Your task to perform on an android device: Open calendar and show me the third week of next month Image 0: 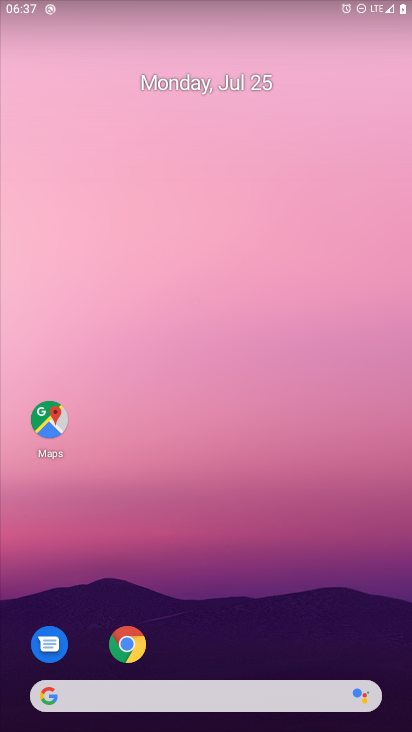
Step 0: press home button
Your task to perform on an android device: Open calendar and show me the third week of next month Image 1: 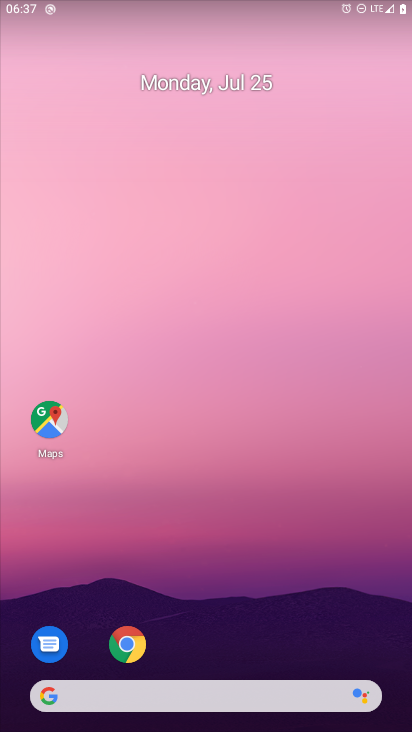
Step 1: drag from (228, 246) to (236, 196)
Your task to perform on an android device: Open calendar and show me the third week of next month Image 2: 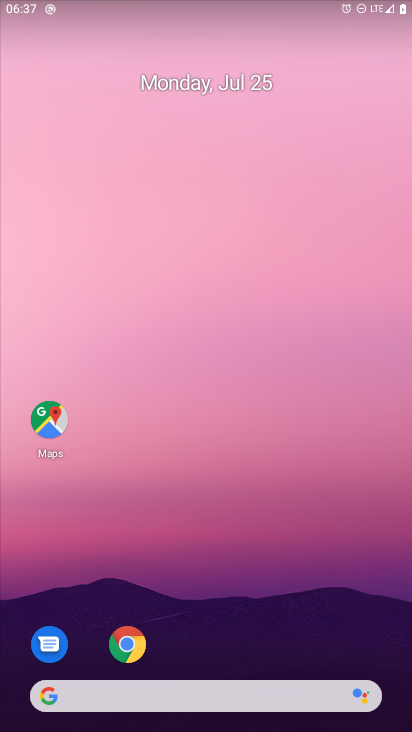
Step 2: drag from (244, 649) to (211, 171)
Your task to perform on an android device: Open calendar and show me the third week of next month Image 3: 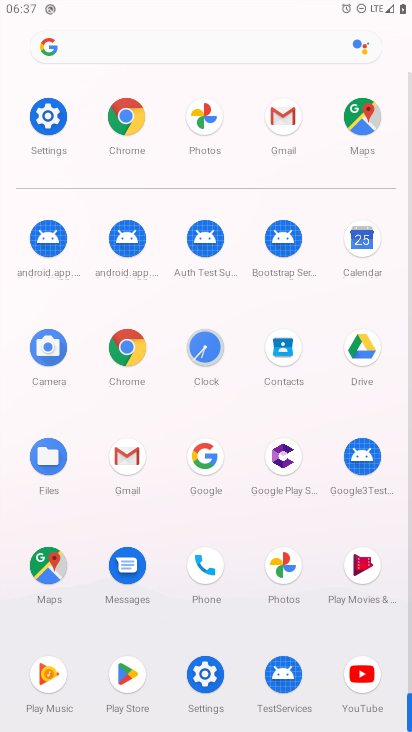
Step 3: click (365, 247)
Your task to perform on an android device: Open calendar and show me the third week of next month Image 4: 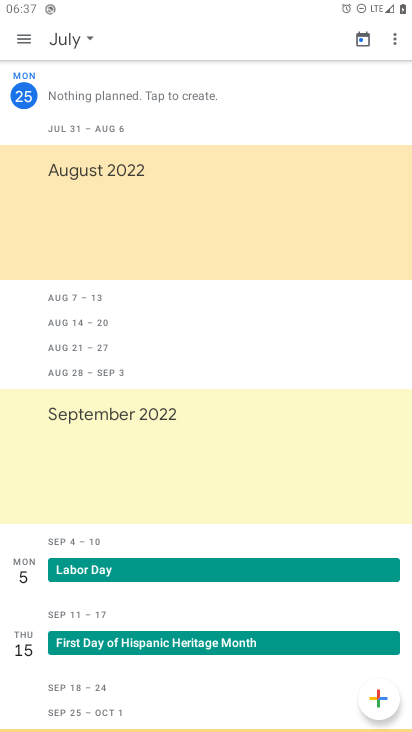
Step 4: click (73, 41)
Your task to perform on an android device: Open calendar and show me the third week of next month Image 5: 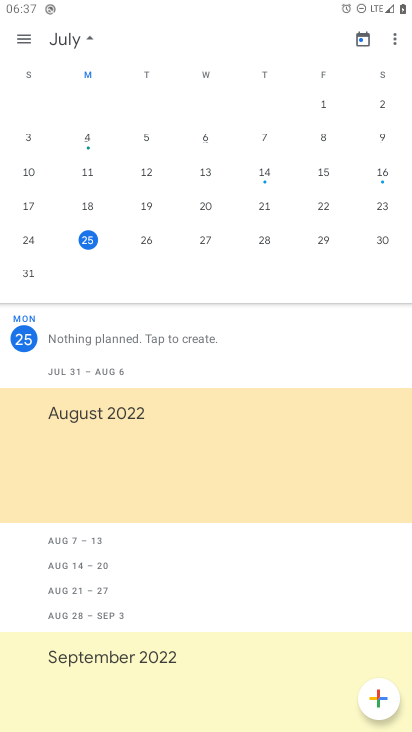
Step 5: drag from (369, 172) to (58, 161)
Your task to perform on an android device: Open calendar and show me the third week of next month Image 6: 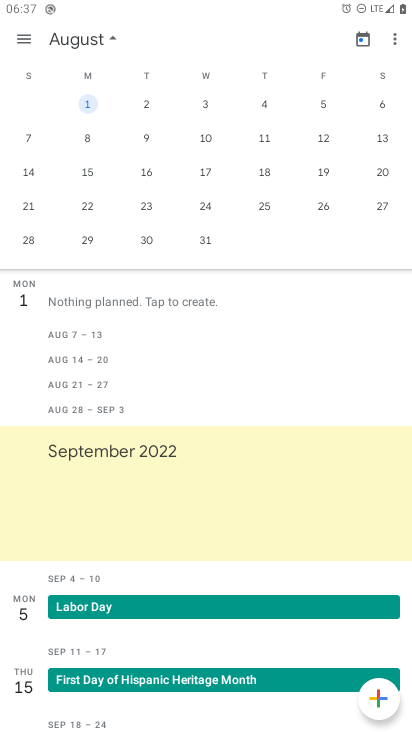
Step 6: click (88, 177)
Your task to perform on an android device: Open calendar and show me the third week of next month Image 7: 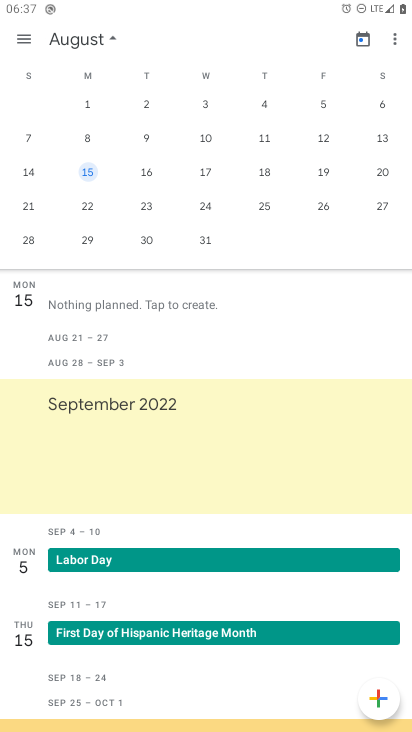
Step 7: click (151, 176)
Your task to perform on an android device: Open calendar and show me the third week of next month Image 8: 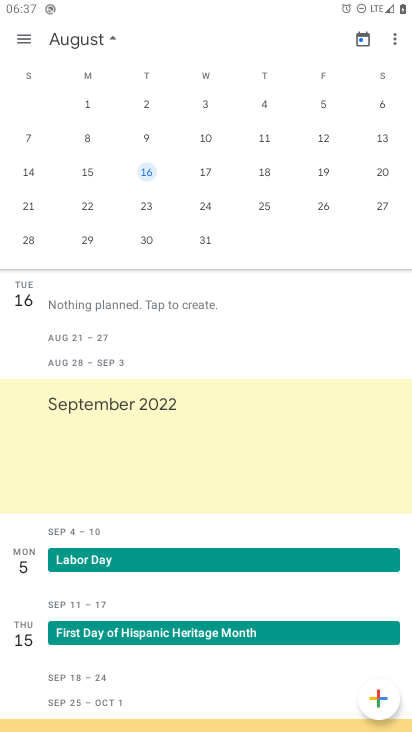
Step 8: click (201, 176)
Your task to perform on an android device: Open calendar and show me the third week of next month Image 9: 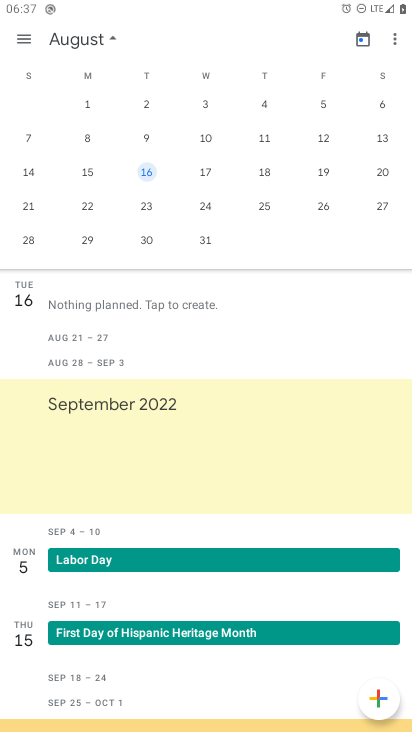
Step 9: click (270, 173)
Your task to perform on an android device: Open calendar and show me the third week of next month Image 10: 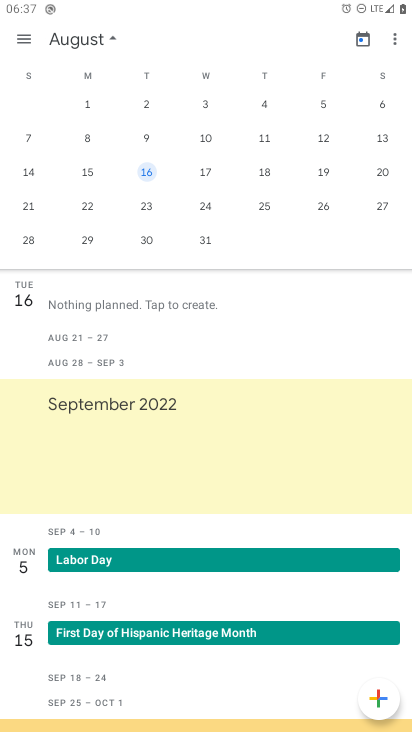
Step 10: click (326, 171)
Your task to perform on an android device: Open calendar and show me the third week of next month Image 11: 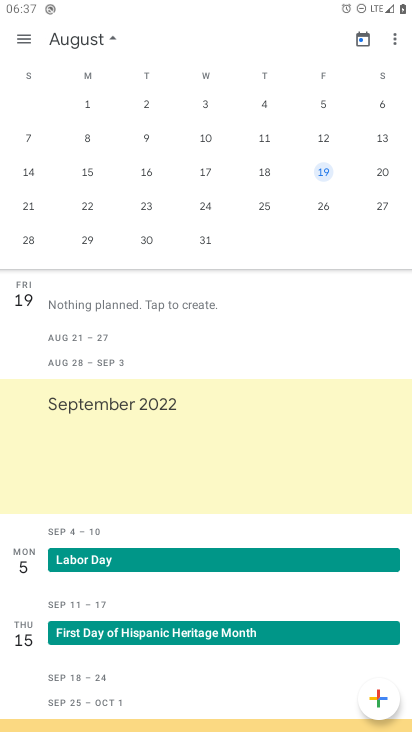
Step 11: click (383, 169)
Your task to perform on an android device: Open calendar and show me the third week of next month Image 12: 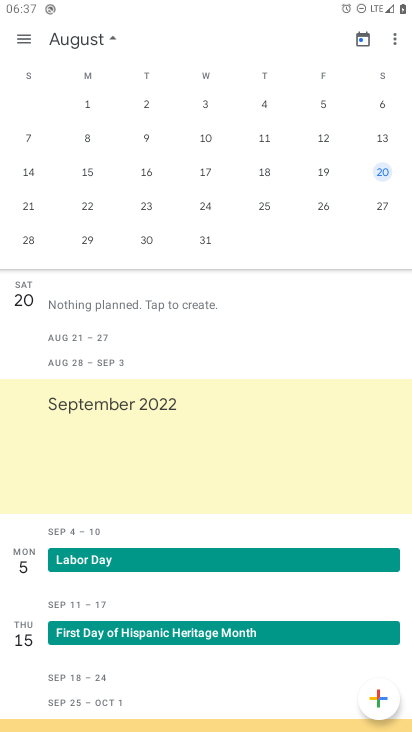
Step 12: click (26, 215)
Your task to perform on an android device: Open calendar and show me the third week of next month Image 13: 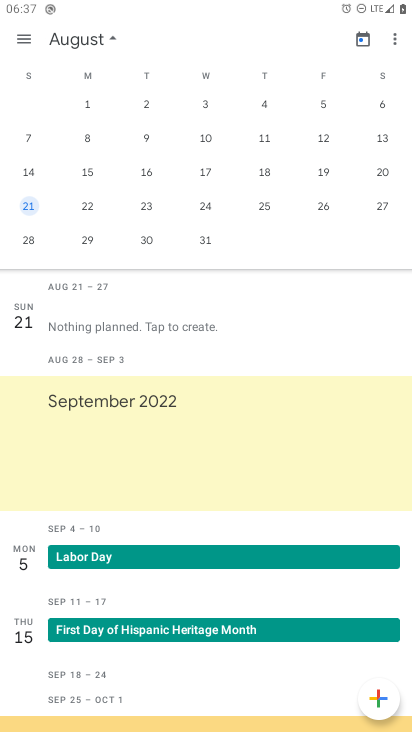
Step 13: task complete